Your task to perform on an android device: Open calendar and show me the third week of next month Image 0: 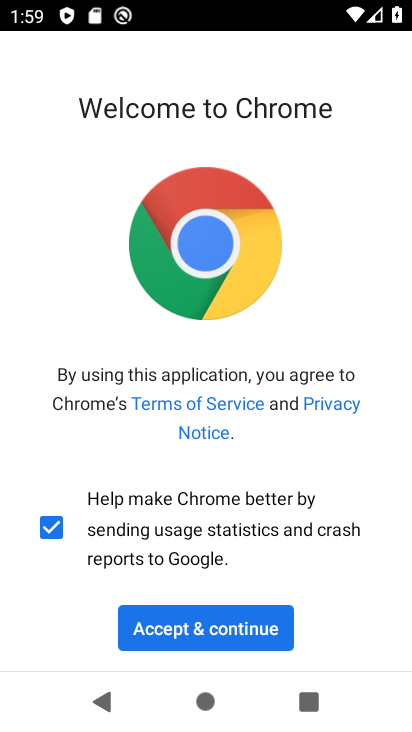
Step 0: press home button
Your task to perform on an android device: Open calendar and show me the third week of next month Image 1: 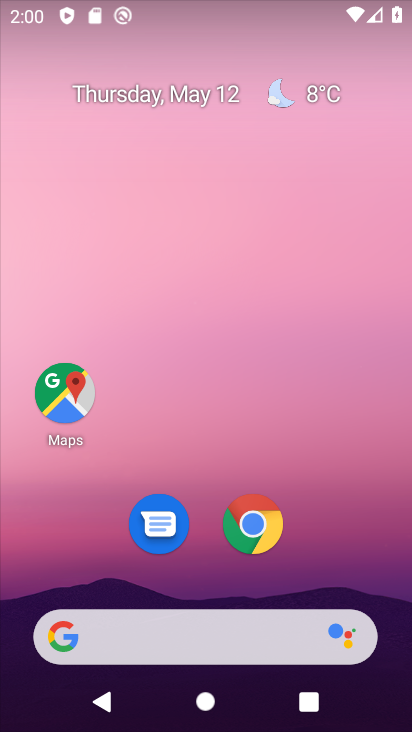
Step 1: drag from (264, 446) to (227, 1)
Your task to perform on an android device: Open calendar and show me the third week of next month Image 2: 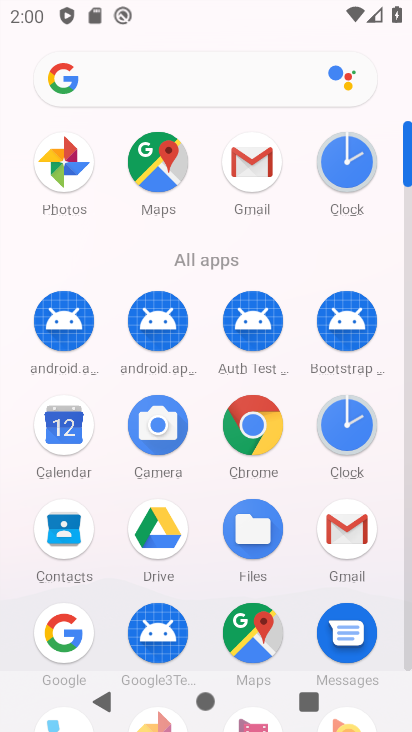
Step 2: click (74, 421)
Your task to perform on an android device: Open calendar and show me the third week of next month Image 3: 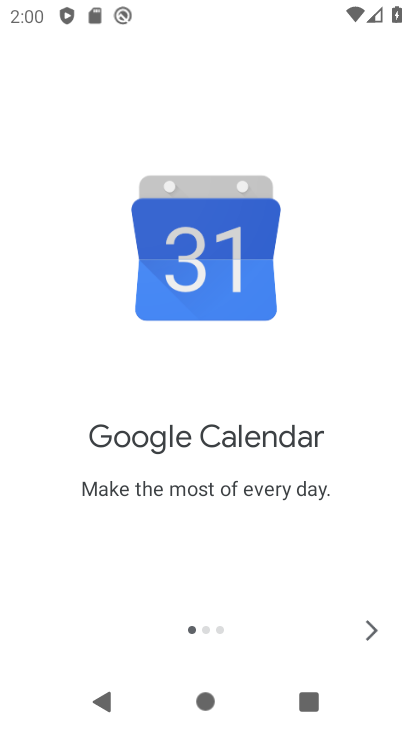
Step 3: click (365, 624)
Your task to perform on an android device: Open calendar and show me the third week of next month Image 4: 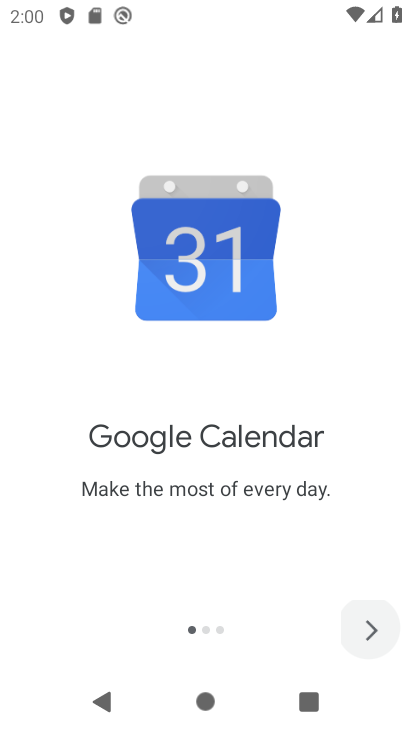
Step 4: click (365, 624)
Your task to perform on an android device: Open calendar and show me the third week of next month Image 5: 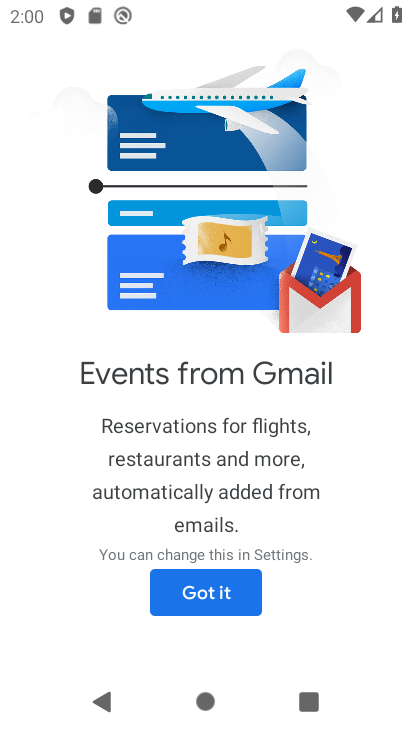
Step 5: click (244, 586)
Your task to perform on an android device: Open calendar and show me the third week of next month Image 6: 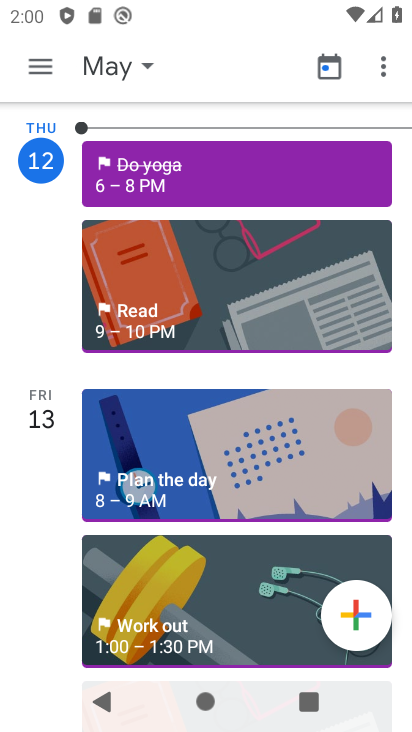
Step 6: click (44, 65)
Your task to perform on an android device: Open calendar and show me the third week of next month Image 7: 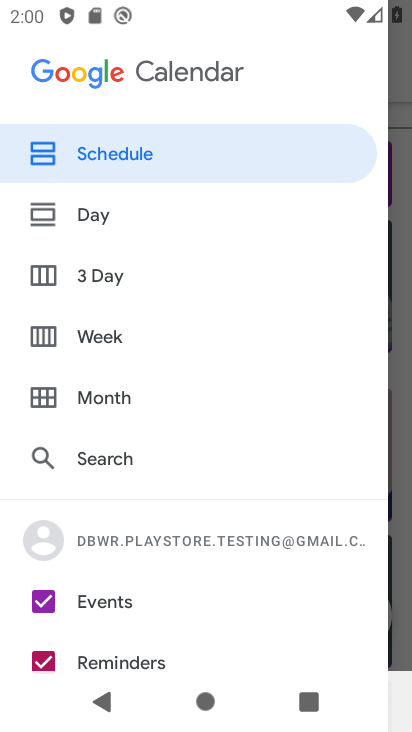
Step 7: click (42, 389)
Your task to perform on an android device: Open calendar and show me the third week of next month Image 8: 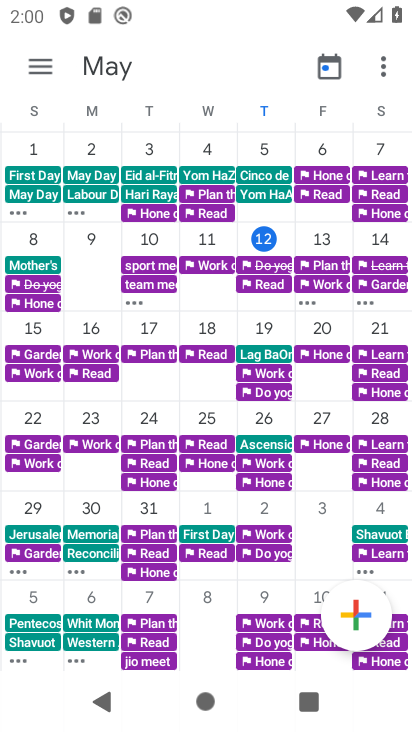
Step 8: drag from (376, 402) to (0, 463)
Your task to perform on an android device: Open calendar and show me the third week of next month Image 9: 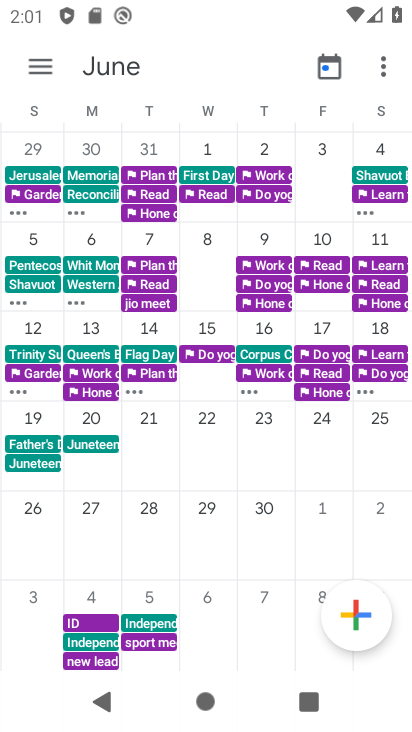
Step 9: click (35, 408)
Your task to perform on an android device: Open calendar and show me the third week of next month Image 10: 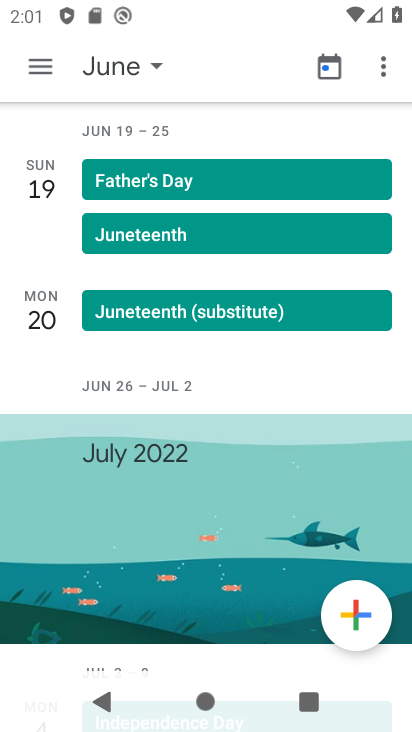
Step 10: click (40, 55)
Your task to perform on an android device: Open calendar and show me the third week of next month Image 11: 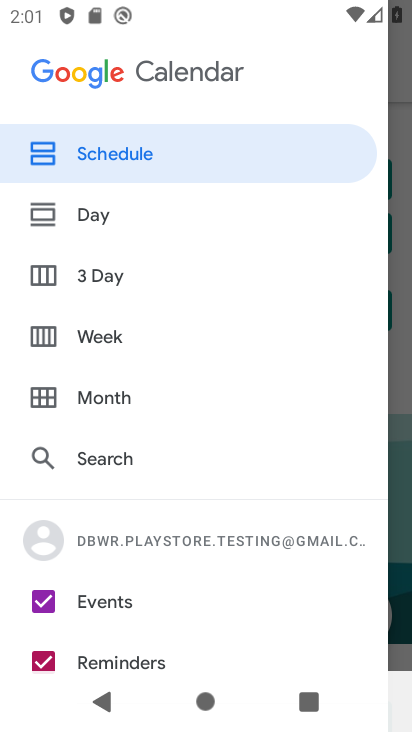
Step 11: click (42, 327)
Your task to perform on an android device: Open calendar and show me the third week of next month Image 12: 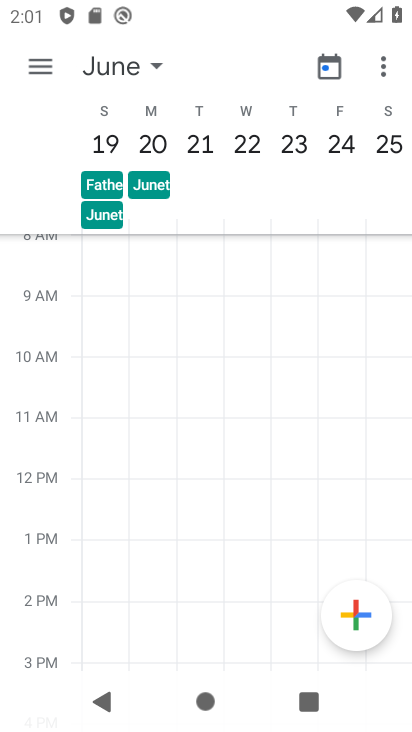
Step 12: task complete